Your task to perform on an android device: open chrome privacy settings Image 0: 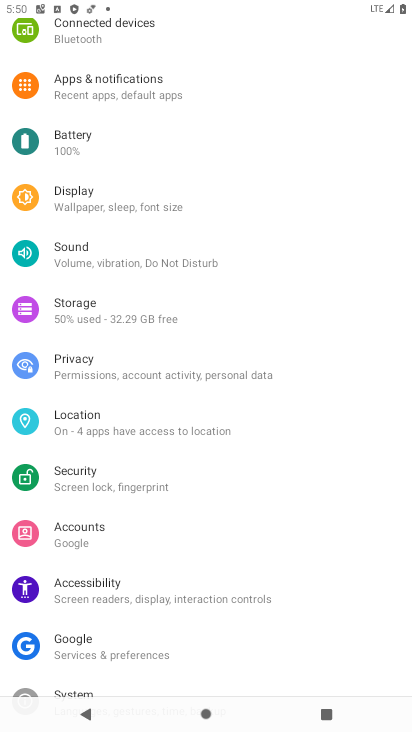
Step 0: press home button
Your task to perform on an android device: open chrome privacy settings Image 1: 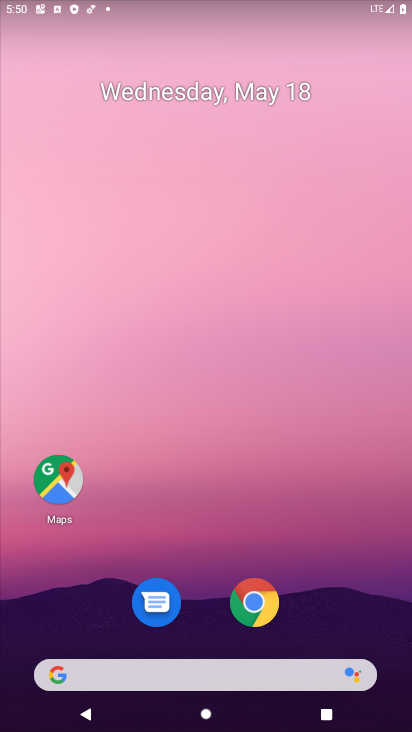
Step 1: drag from (345, 673) to (261, 14)
Your task to perform on an android device: open chrome privacy settings Image 2: 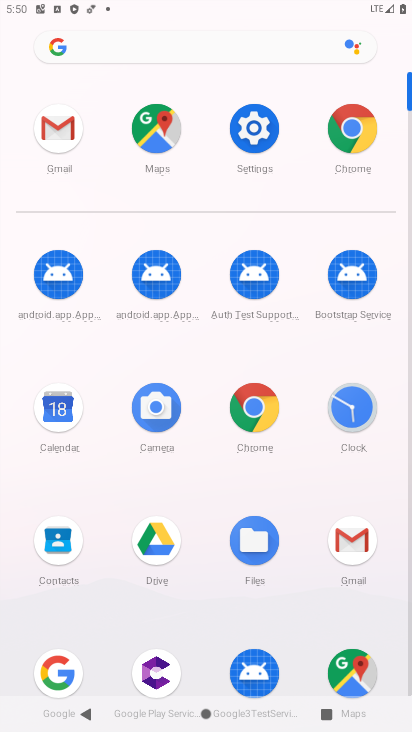
Step 2: click (236, 114)
Your task to perform on an android device: open chrome privacy settings Image 3: 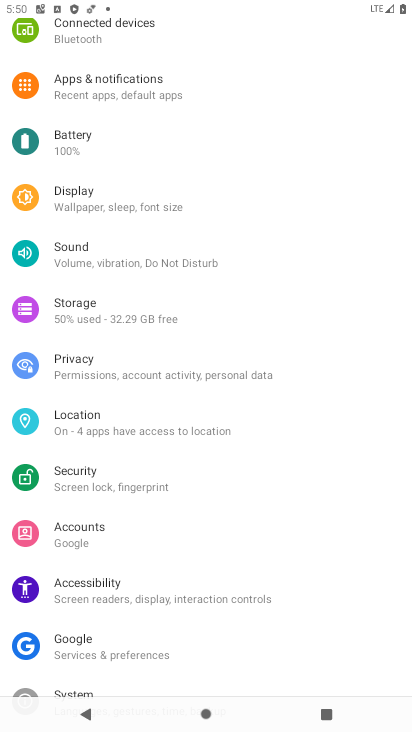
Step 3: press home button
Your task to perform on an android device: open chrome privacy settings Image 4: 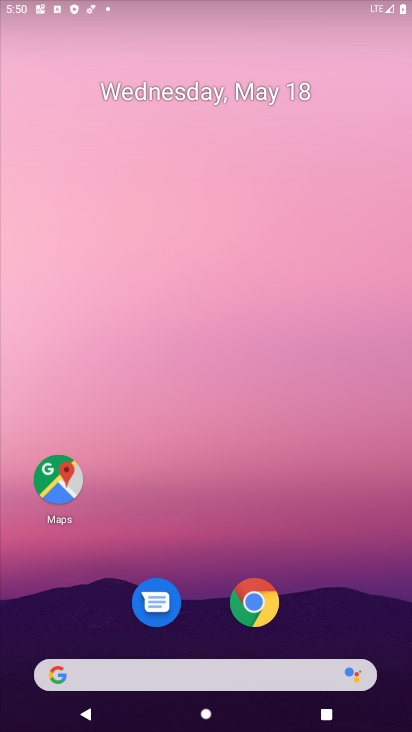
Step 4: drag from (307, 678) to (350, 79)
Your task to perform on an android device: open chrome privacy settings Image 5: 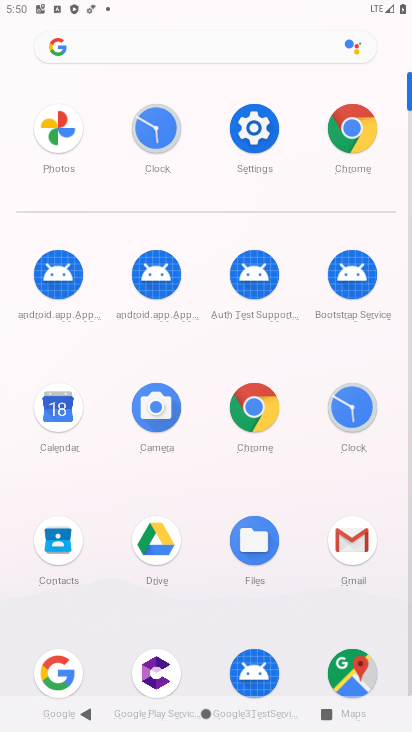
Step 5: click (244, 411)
Your task to perform on an android device: open chrome privacy settings Image 6: 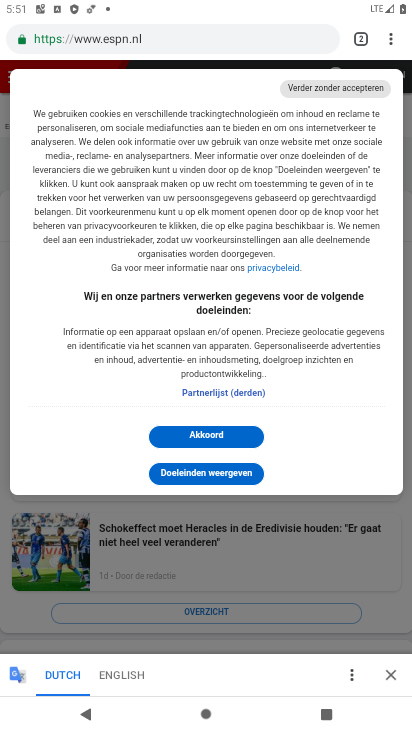
Step 6: click (382, 44)
Your task to perform on an android device: open chrome privacy settings Image 7: 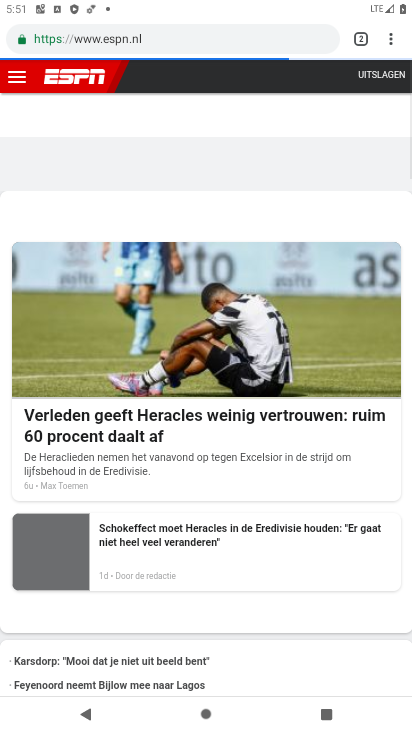
Step 7: drag from (396, 39) to (261, 463)
Your task to perform on an android device: open chrome privacy settings Image 8: 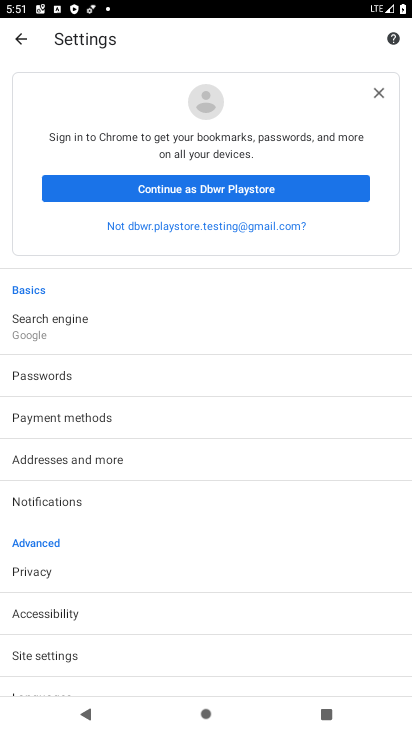
Step 8: click (166, 576)
Your task to perform on an android device: open chrome privacy settings Image 9: 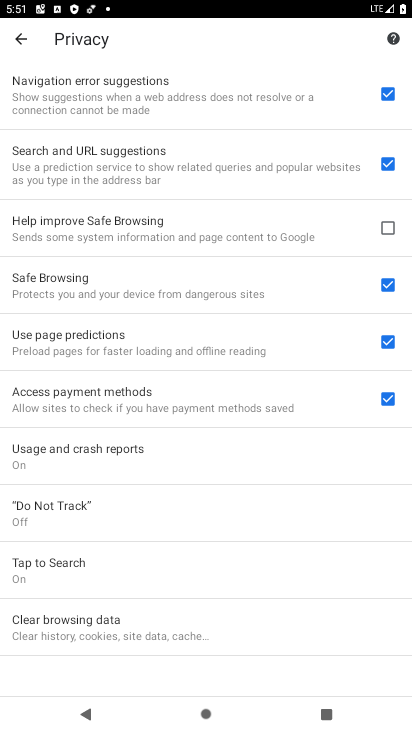
Step 9: task complete